Your task to perform on an android device: add a contact in the contacts app Image 0: 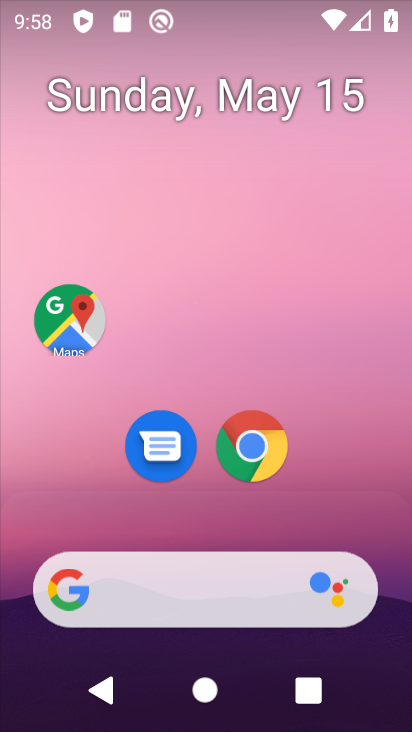
Step 0: drag from (313, 430) to (320, 40)
Your task to perform on an android device: add a contact in the contacts app Image 1: 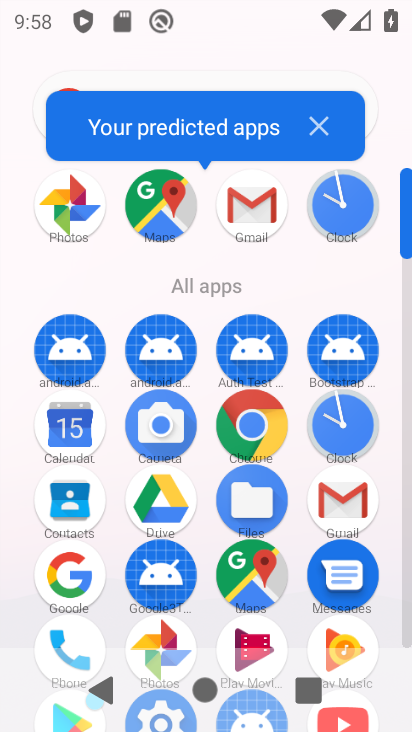
Step 1: click (69, 502)
Your task to perform on an android device: add a contact in the contacts app Image 2: 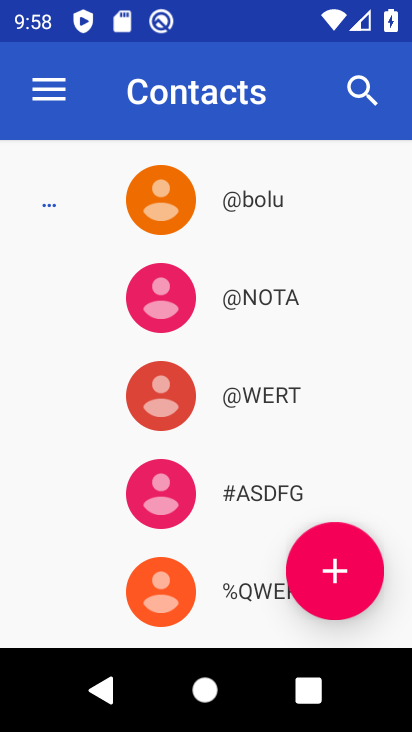
Step 2: click (346, 572)
Your task to perform on an android device: add a contact in the contacts app Image 3: 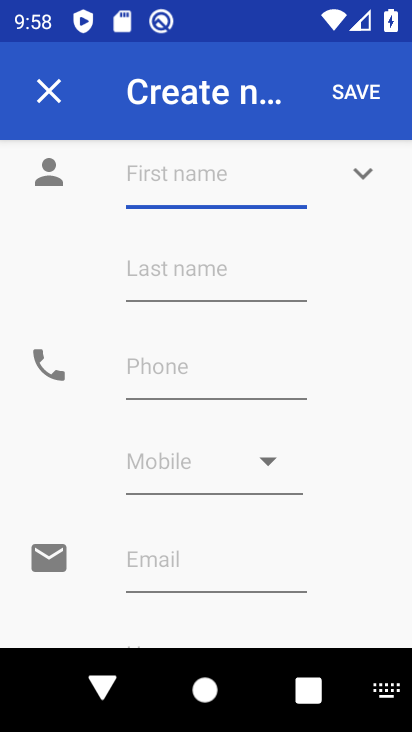
Step 3: type "connection no.6"
Your task to perform on an android device: add a contact in the contacts app Image 4: 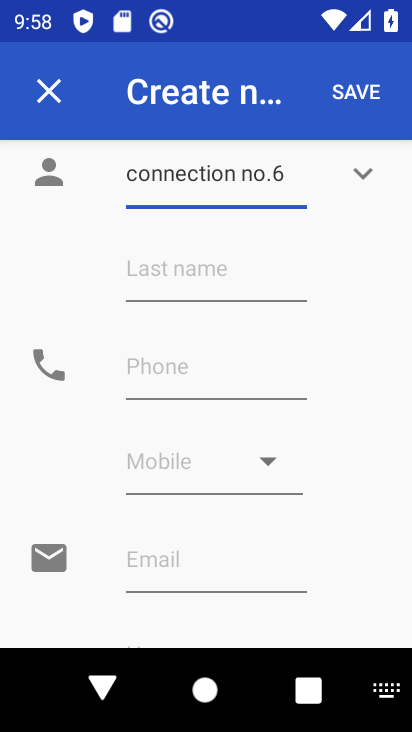
Step 4: click (185, 371)
Your task to perform on an android device: add a contact in the contacts app Image 5: 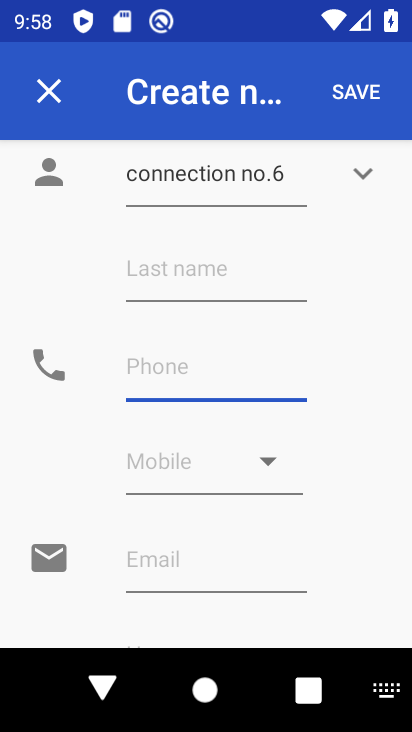
Step 5: type "9876767656"
Your task to perform on an android device: add a contact in the contacts app Image 6: 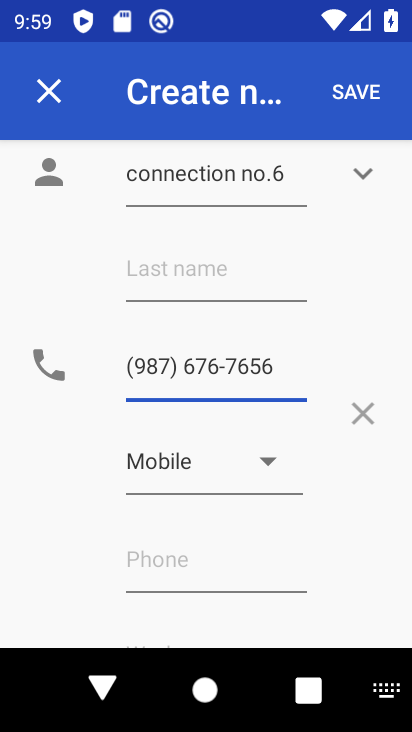
Step 6: click (355, 82)
Your task to perform on an android device: add a contact in the contacts app Image 7: 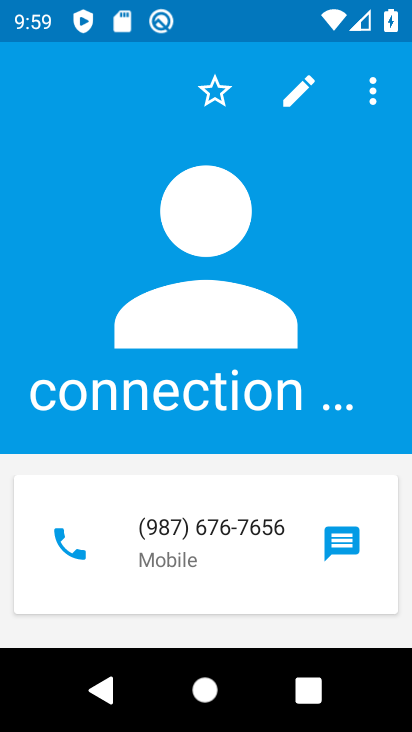
Step 7: task complete